Your task to perform on an android device: toggle pop-ups in chrome Image 0: 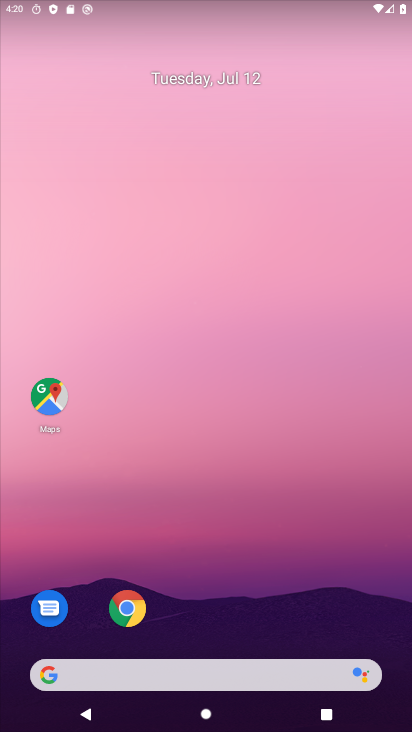
Step 0: click (122, 607)
Your task to perform on an android device: toggle pop-ups in chrome Image 1: 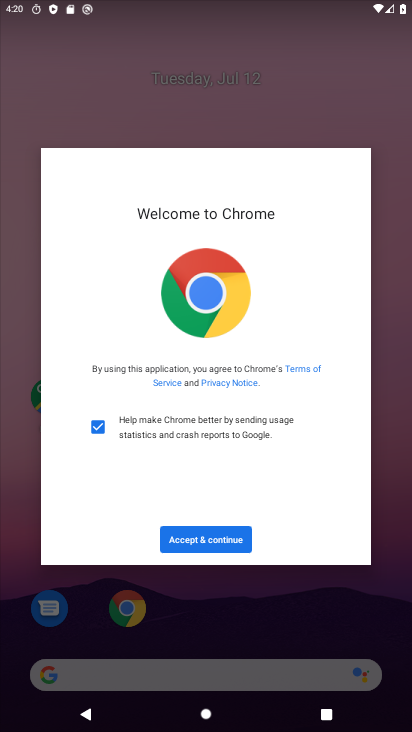
Step 1: click (223, 537)
Your task to perform on an android device: toggle pop-ups in chrome Image 2: 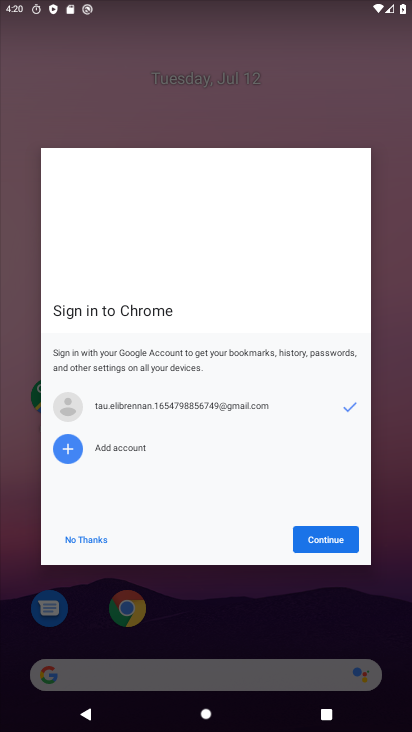
Step 2: click (348, 540)
Your task to perform on an android device: toggle pop-ups in chrome Image 3: 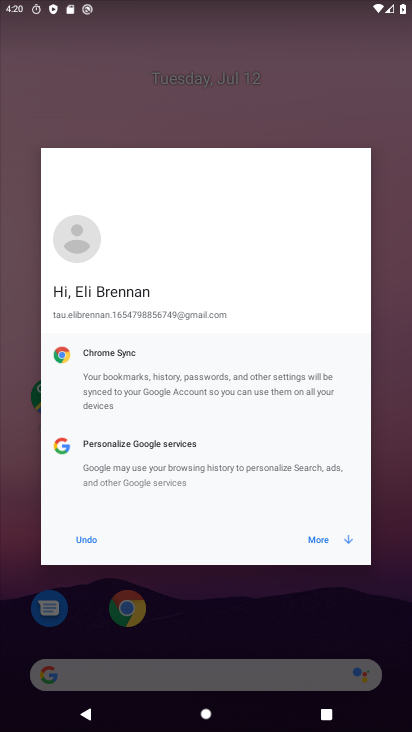
Step 3: click (348, 540)
Your task to perform on an android device: toggle pop-ups in chrome Image 4: 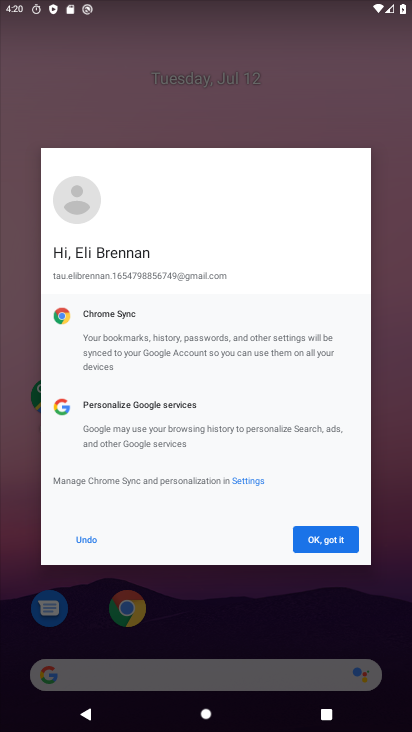
Step 4: click (348, 540)
Your task to perform on an android device: toggle pop-ups in chrome Image 5: 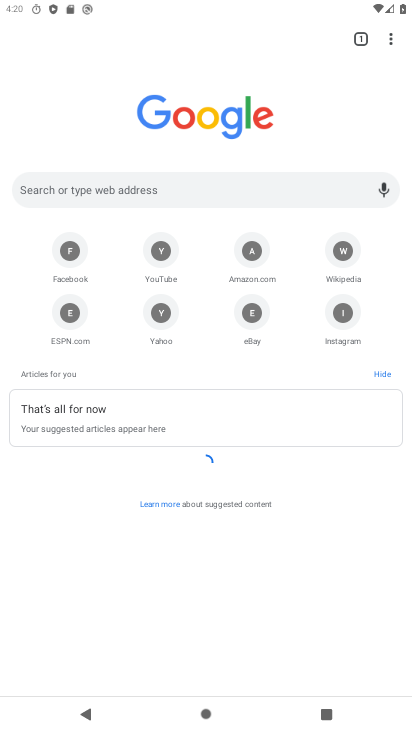
Step 5: click (389, 32)
Your task to perform on an android device: toggle pop-ups in chrome Image 6: 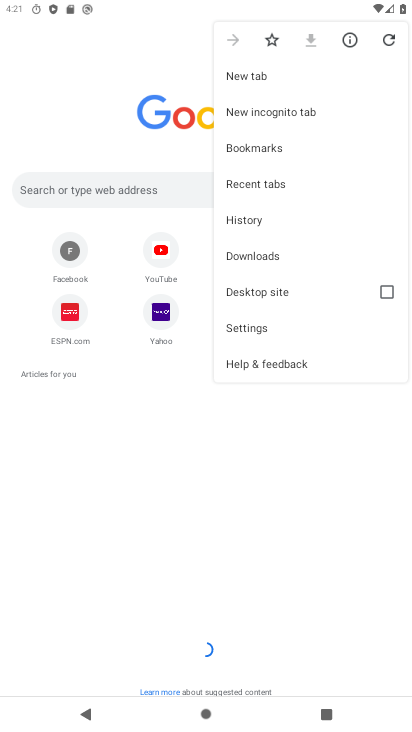
Step 6: click (249, 333)
Your task to perform on an android device: toggle pop-ups in chrome Image 7: 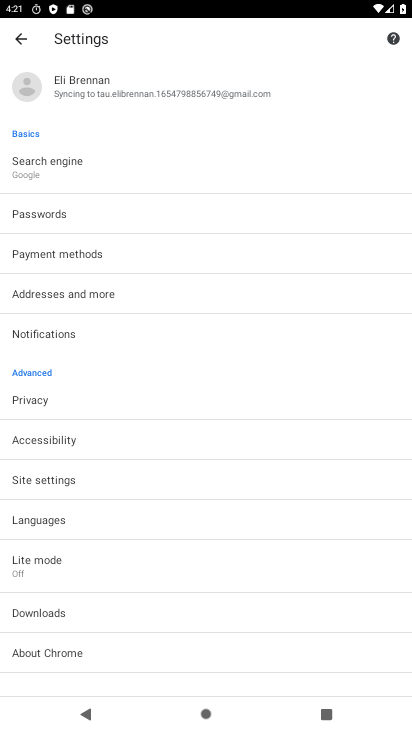
Step 7: click (240, 482)
Your task to perform on an android device: toggle pop-ups in chrome Image 8: 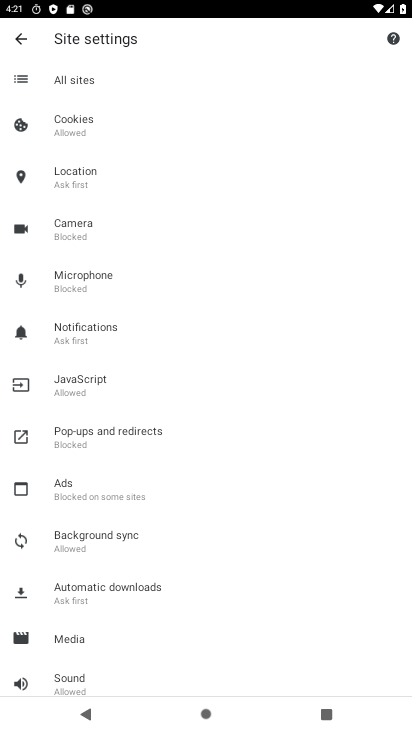
Step 8: click (156, 432)
Your task to perform on an android device: toggle pop-ups in chrome Image 9: 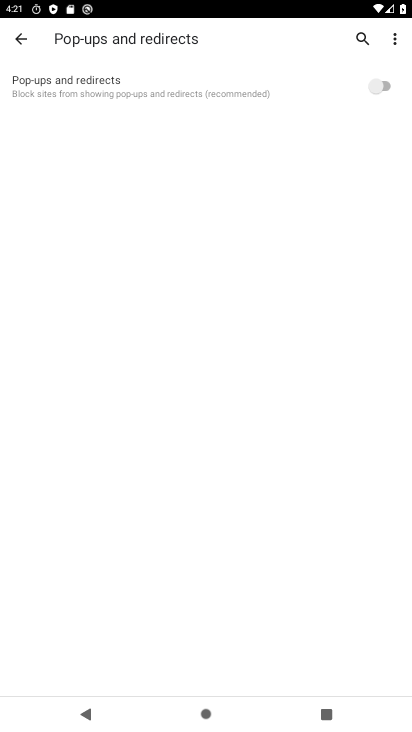
Step 9: click (380, 84)
Your task to perform on an android device: toggle pop-ups in chrome Image 10: 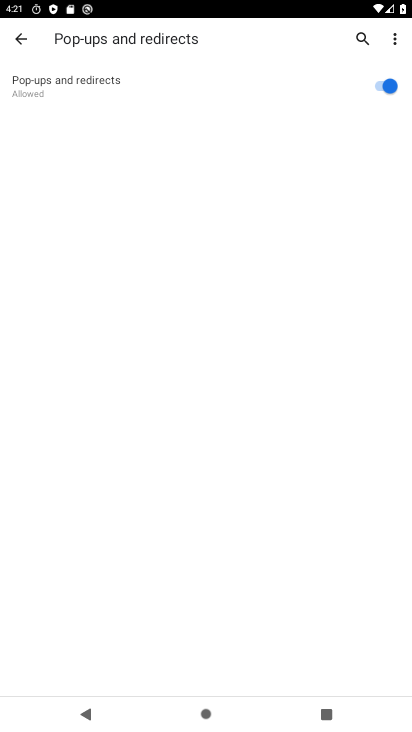
Step 10: task complete